Your task to perform on an android device: see sites visited before in the chrome app Image 0: 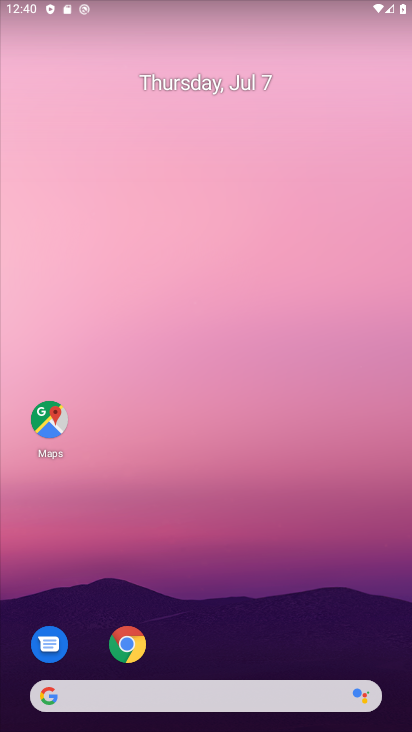
Step 0: click (141, 641)
Your task to perform on an android device: see sites visited before in the chrome app Image 1: 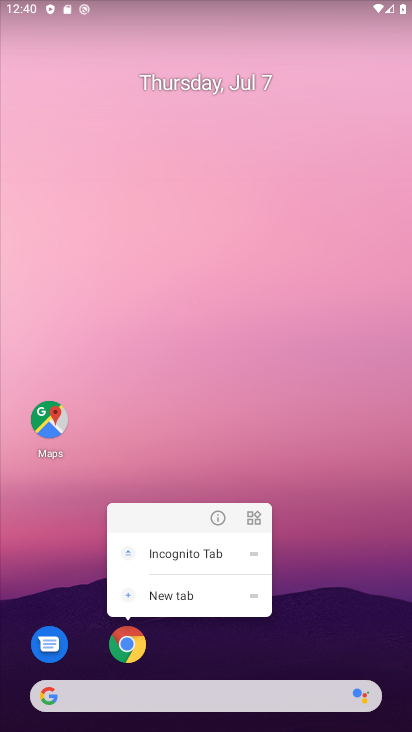
Step 1: click (135, 644)
Your task to perform on an android device: see sites visited before in the chrome app Image 2: 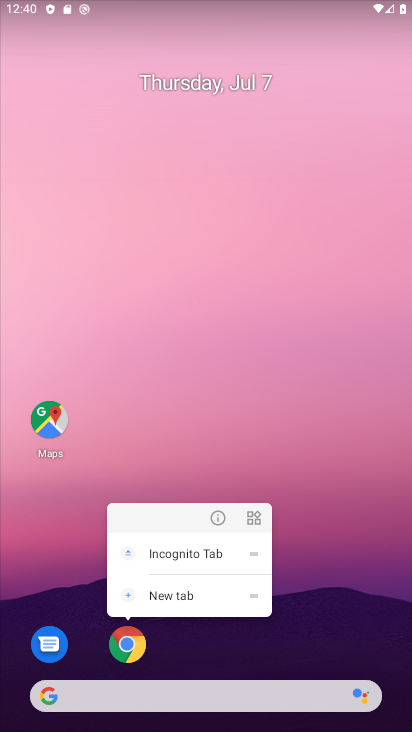
Step 2: click (129, 647)
Your task to perform on an android device: see sites visited before in the chrome app Image 3: 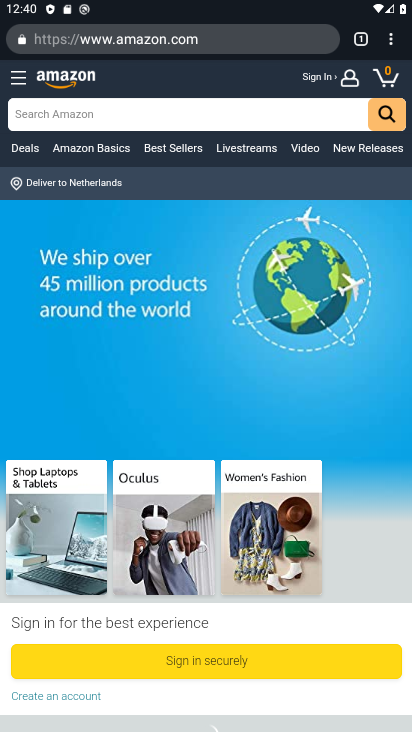
Step 3: click (400, 36)
Your task to perform on an android device: see sites visited before in the chrome app Image 4: 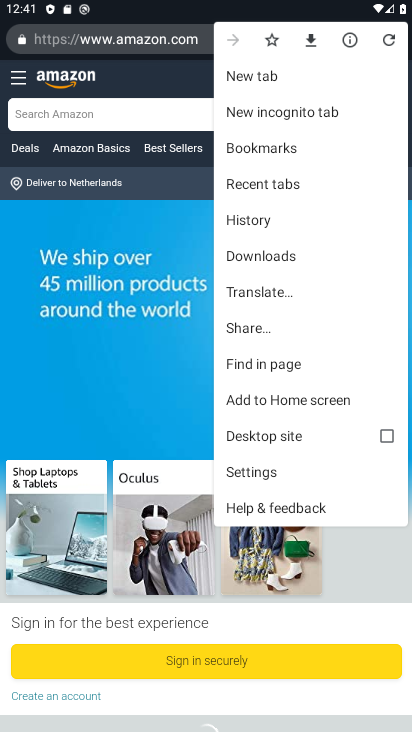
Step 4: click (280, 217)
Your task to perform on an android device: see sites visited before in the chrome app Image 5: 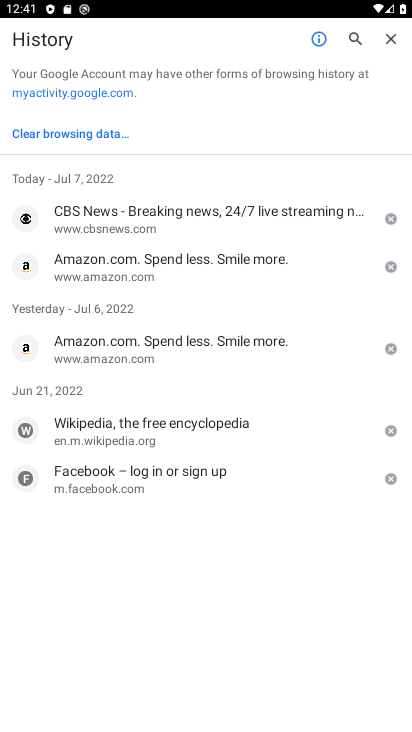
Step 5: task complete